Your task to perform on an android device: Go to ESPN.com Image 0: 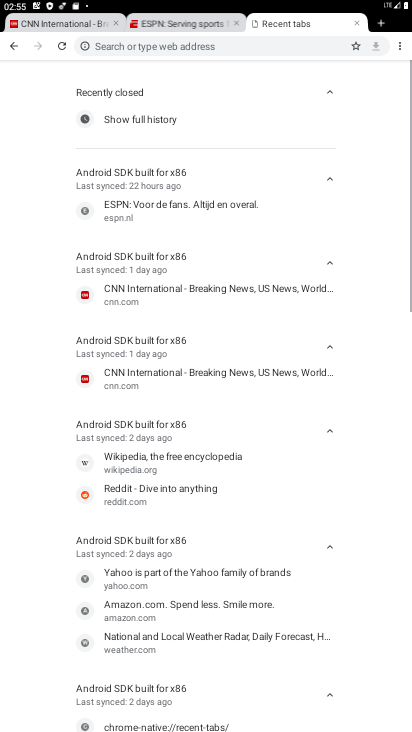
Step 0: click (241, 657)
Your task to perform on an android device: Go to ESPN.com Image 1: 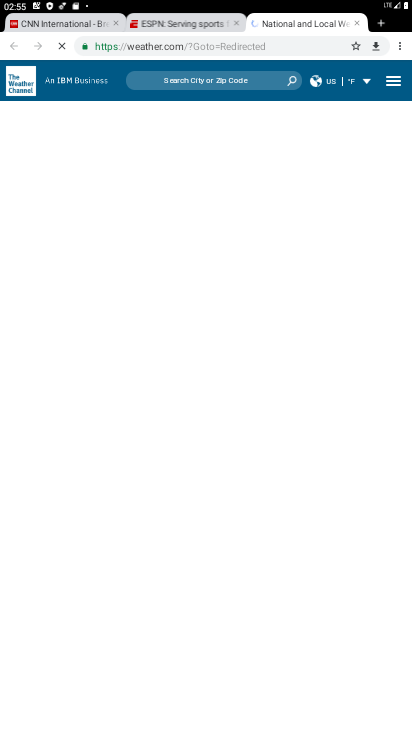
Step 1: press home button
Your task to perform on an android device: Go to ESPN.com Image 2: 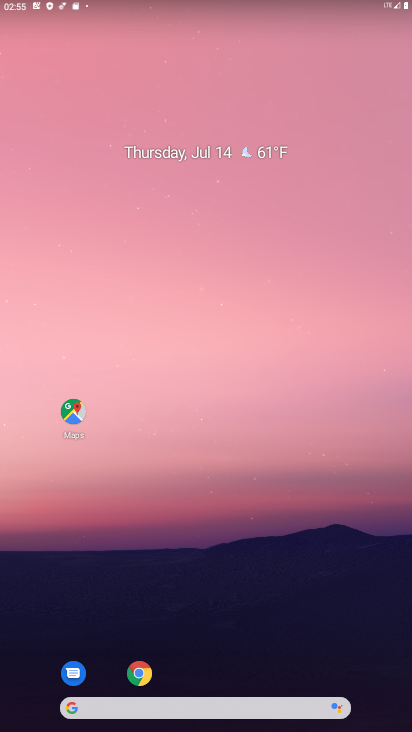
Step 2: drag from (282, 651) to (297, 180)
Your task to perform on an android device: Go to ESPN.com Image 3: 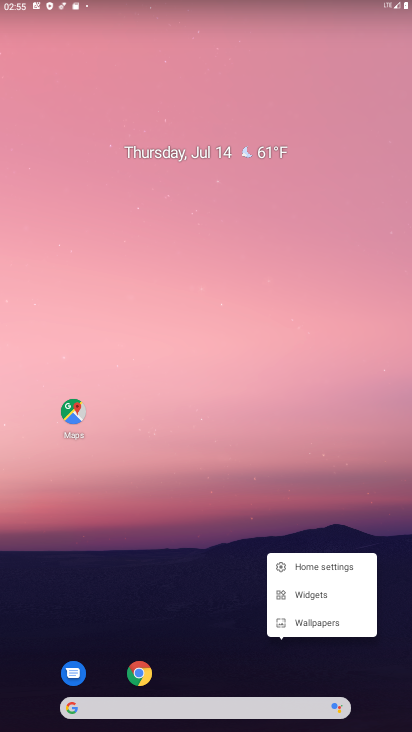
Step 3: click (227, 387)
Your task to perform on an android device: Go to ESPN.com Image 4: 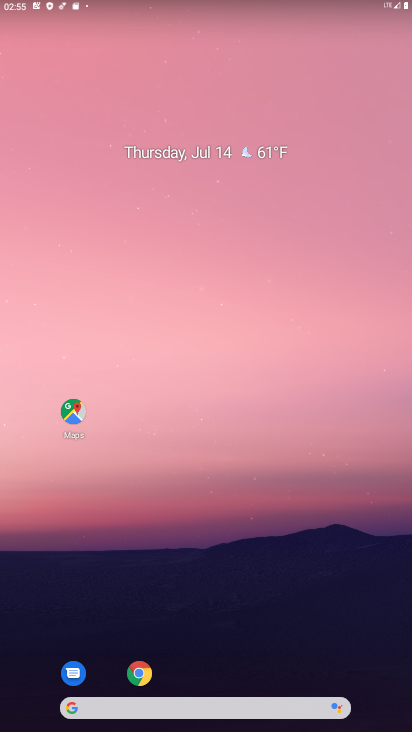
Step 4: drag from (228, 608) to (239, 172)
Your task to perform on an android device: Go to ESPN.com Image 5: 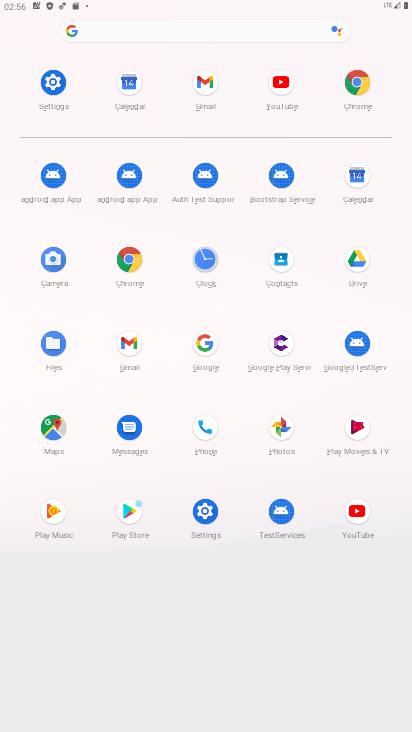
Step 5: click (351, 95)
Your task to perform on an android device: Go to ESPN.com Image 6: 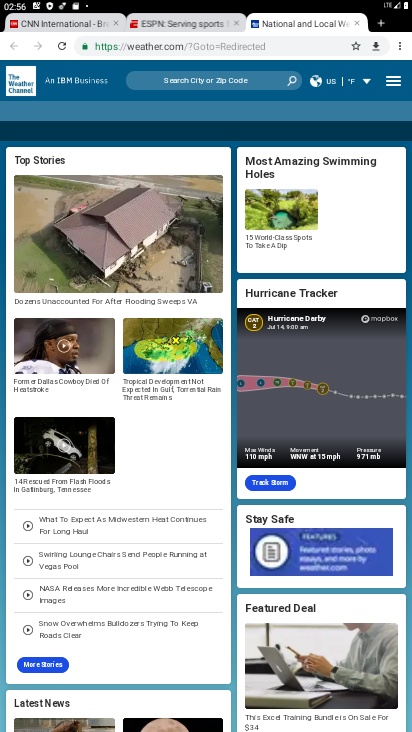
Step 6: press home button
Your task to perform on an android device: Go to ESPN.com Image 7: 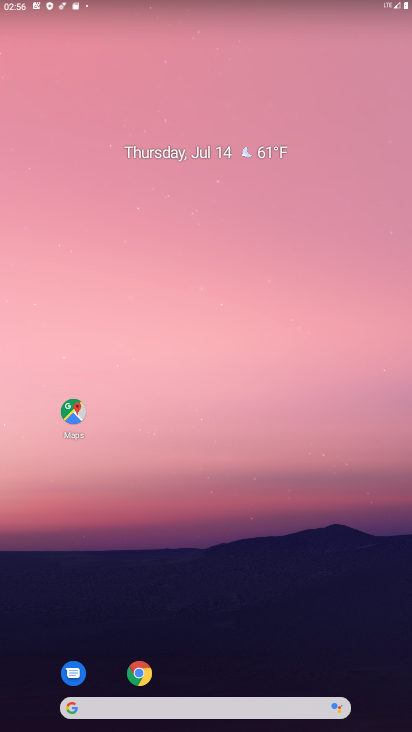
Step 7: click (141, 672)
Your task to perform on an android device: Go to ESPN.com Image 8: 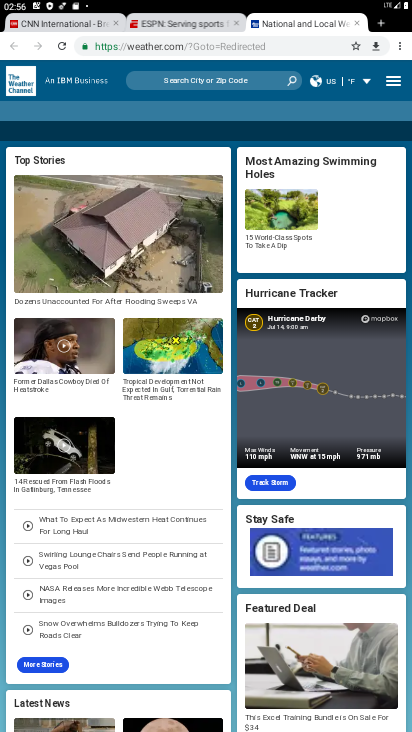
Step 8: click (140, 29)
Your task to perform on an android device: Go to ESPN.com Image 9: 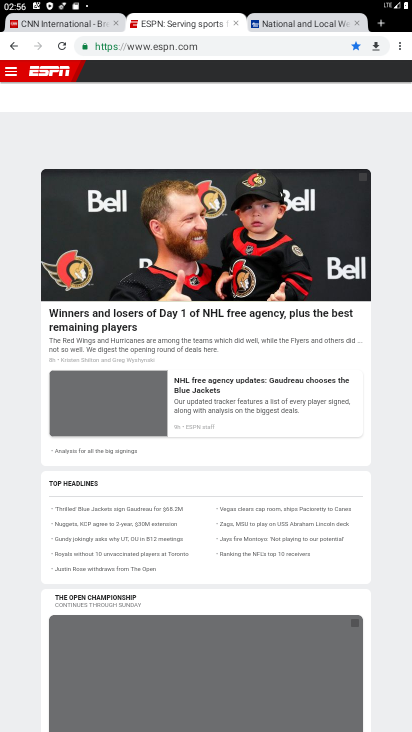
Step 9: task complete